Your task to perform on an android device: toggle priority inbox in the gmail app Image 0: 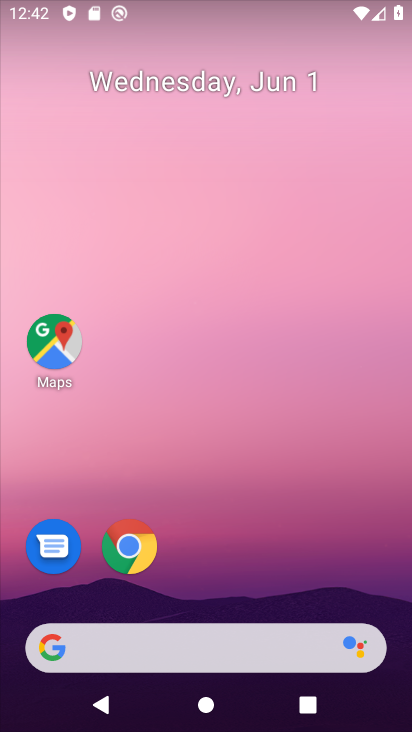
Step 0: drag from (331, 554) to (287, 244)
Your task to perform on an android device: toggle priority inbox in the gmail app Image 1: 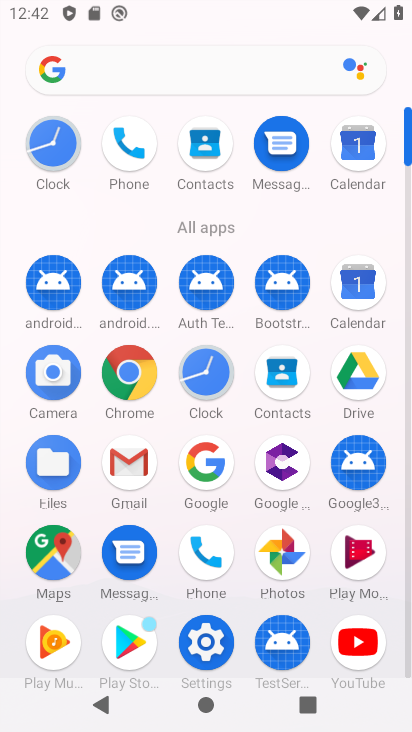
Step 1: click (139, 481)
Your task to perform on an android device: toggle priority inbox in the gmail app Image 2: 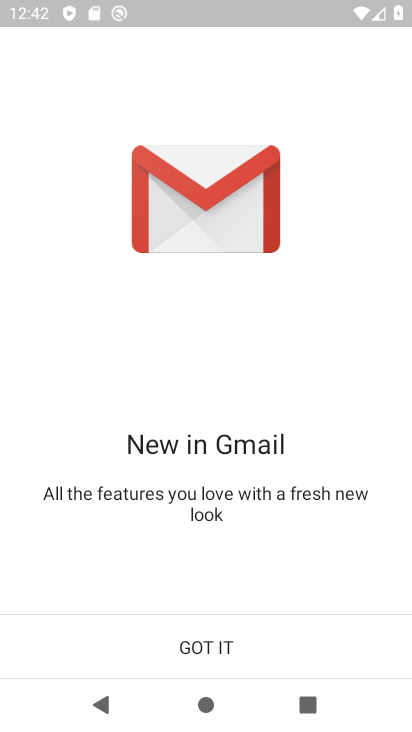
Step 2: click (139, 481)
Your task to perform on an android device: toggle priority inbox in the gmail app Image 3: 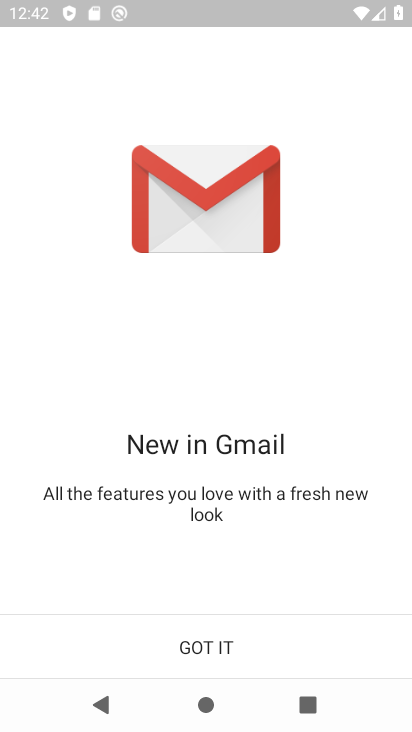
Step 3: click (244, 629)
Your task to perform on an android device: toggle priority inbox in the gmail app Image 4: 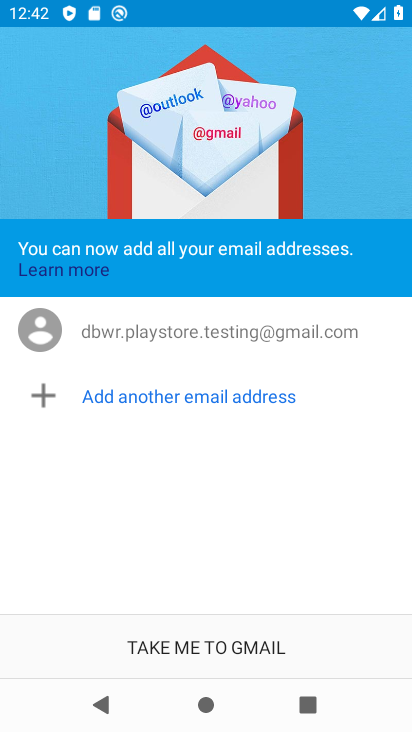
Step 4: click (244, 629)
Your task to perform on an android device: toggle priority inbox in the gmail app Image 5: 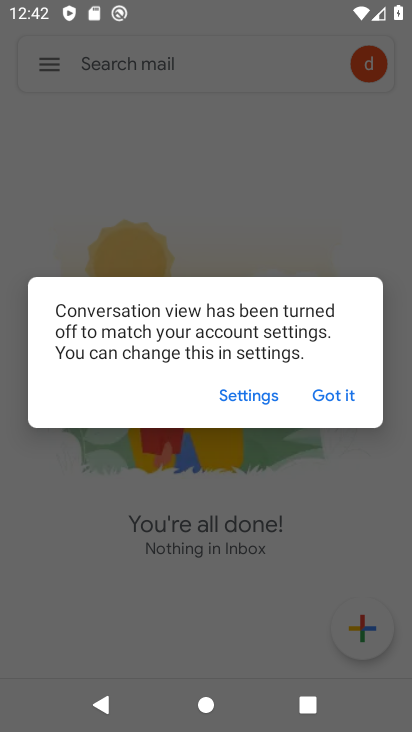
Step 5: click (322, 412)
Your task to perform on an android device: toggle priority inbox in the gmail app Image 6: 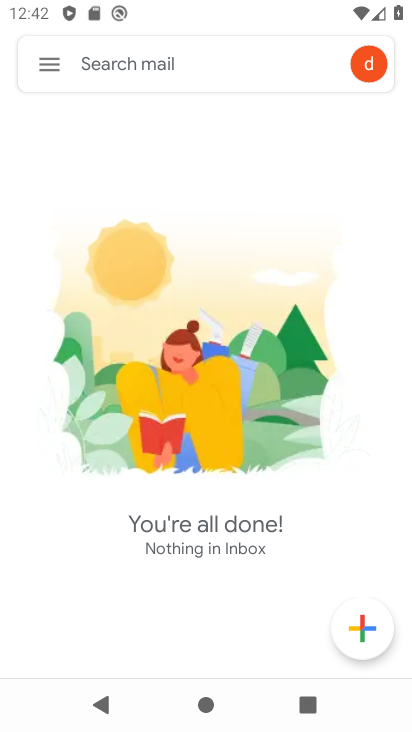
Step 6: click (58, 76)
Your task to perform on an android device: toggle priority inbox in the gmail app Image 7: 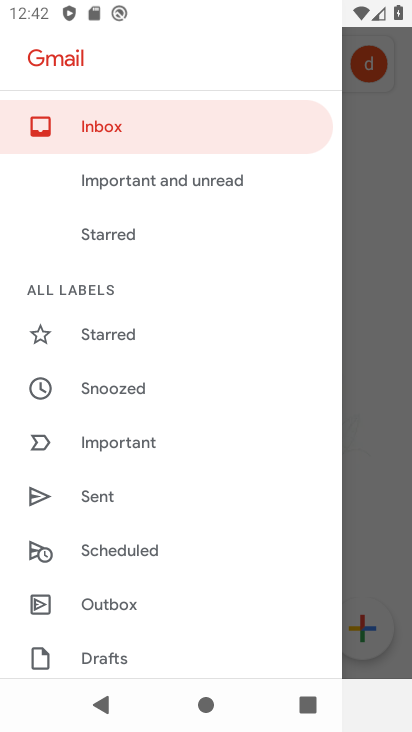
Step 7: drag from (165, 412) to (163, 274)
Your task to perform on an android device: toggle priority inbox in the gmail app Image 8: 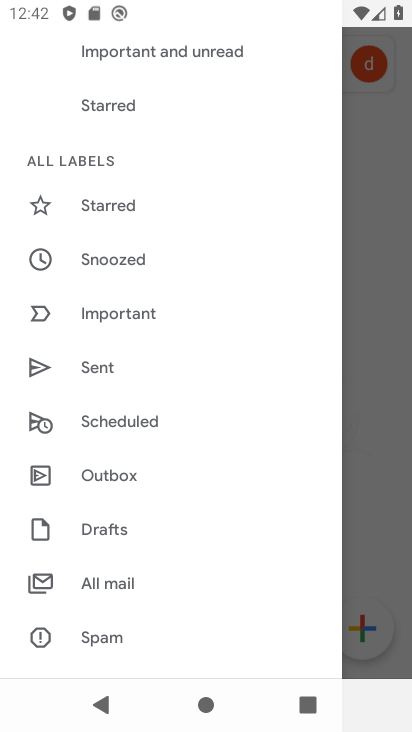
Step 8: drag from (174, 561) to (153, 370)
Your task to perform on an android device: toggle priority inbox in the gmail app Image 9: 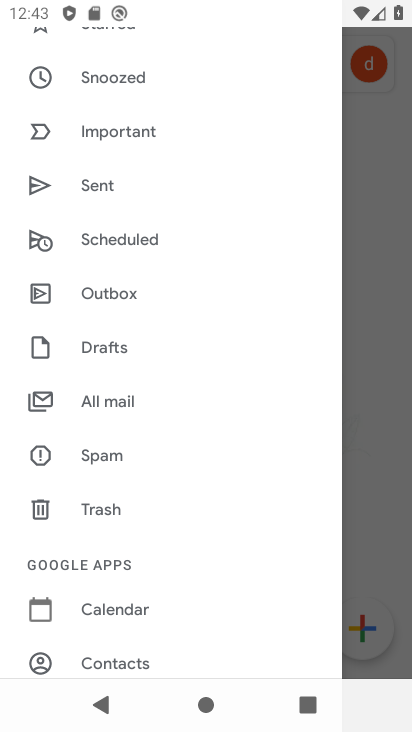
Step 9: drag from (148, 626) to (141, 322)
Your task to perform on an android device: toggle priority inbox in the gmail app Image 10: 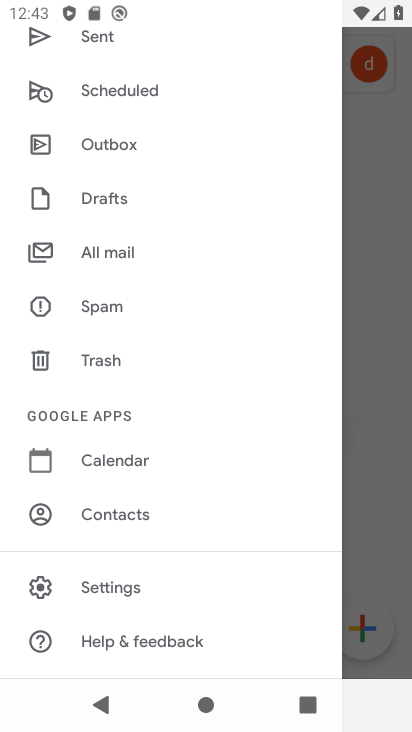
Step 10: click (142, 578)
Your task to perform on an android device: toggle priority inbox in the gmail app Image 11: 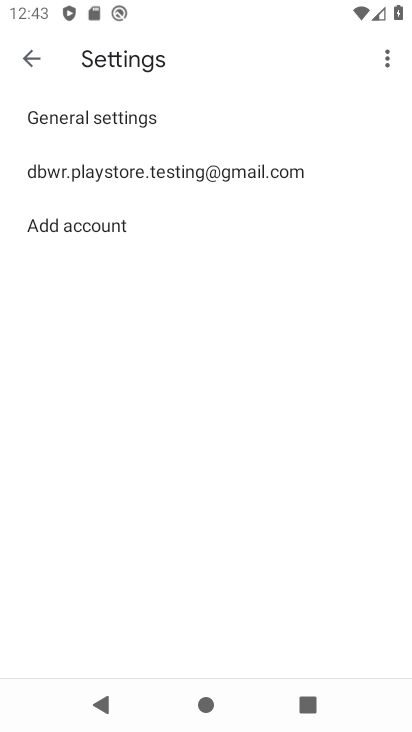
Step 11: click (89, 177)
Your task to perform on an android device: toggle priority inbox in the gmail app Image 12: 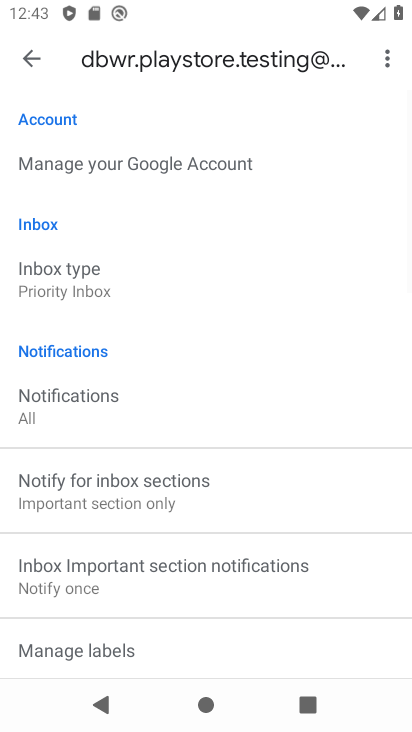
Step 12: click (96, 280)
Your task to perform on an android device: toggle priority inbox in the gmail app Image 13: 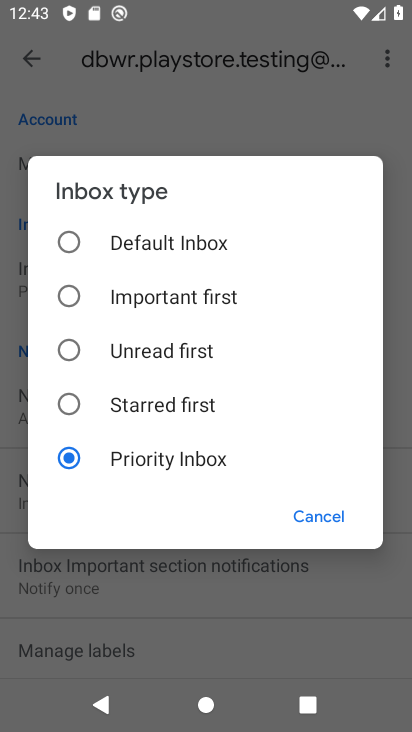
Step 13: click (151, 251)
Your task to perform on an android device: toggle priority inbox in the gmail app Image 14: 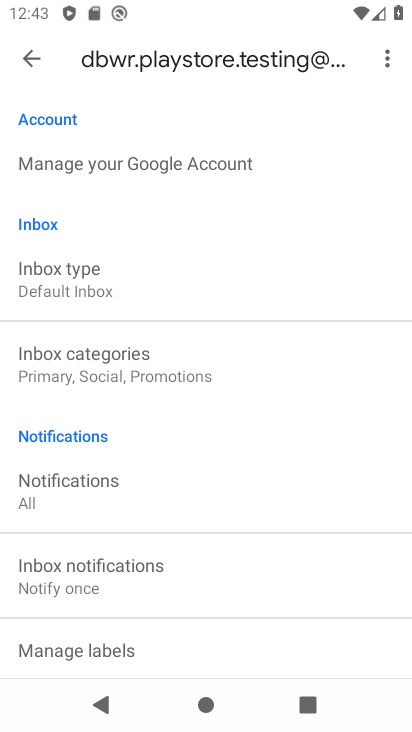
Step 14: task complete